Your task to perform on an android device: toggle javascript in the chrome app Image 0: 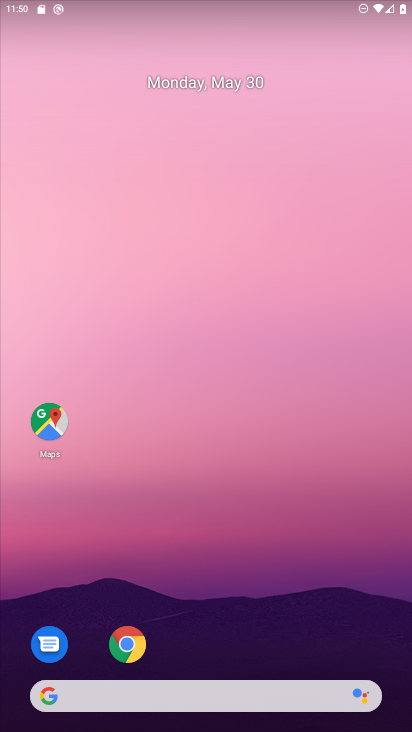
Step 0: click (207, 31)
Your task to perform on an android device: toggle javascript in the chrome app Image 1: 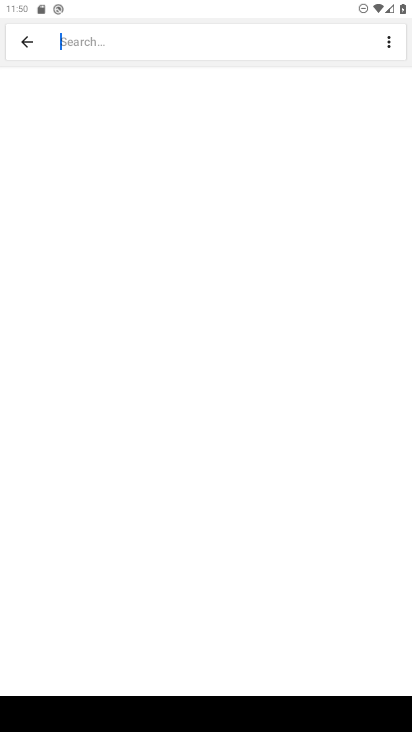
Step 1: press home button
Your task to perform on an android device: toggle javascript in the chrome app Image 2: 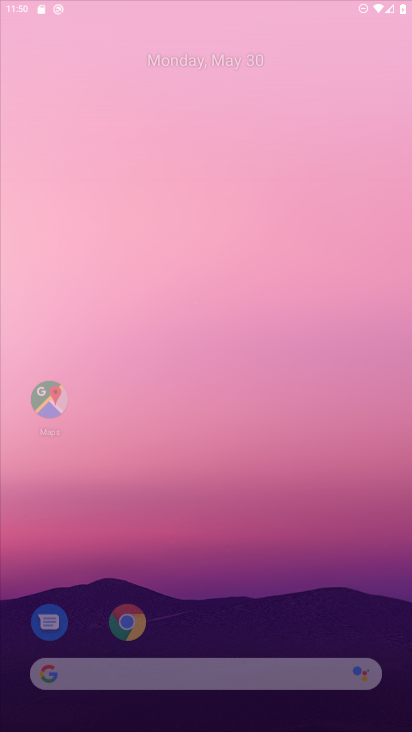
Step 2: drag from (269, 393) to (281, 7)
Your task to perform on an android device: toggle javascript in the chrome app Image 3: 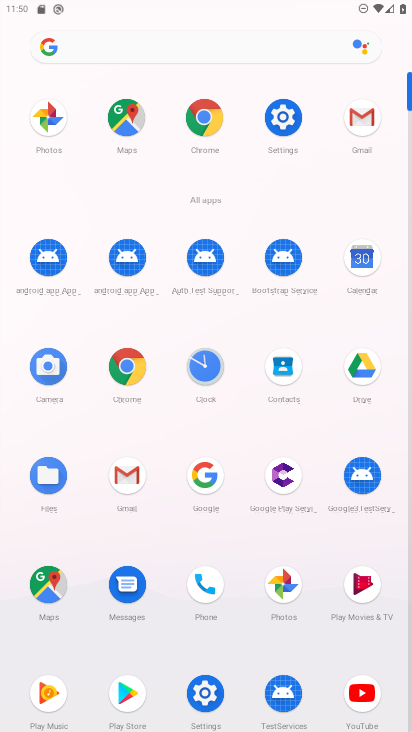
Step 3: click (117, 362)
Your task to perform on an android device: toggle javascript in the chrome app Image 4: 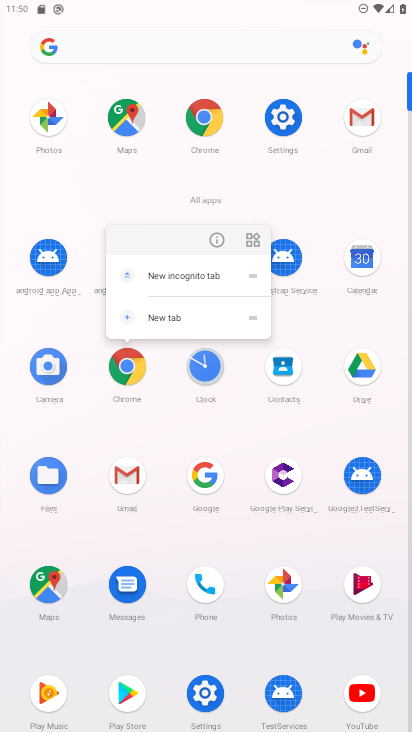
Step 4: click (214, 233)
Your task to perform on an android device: toggle javascript in the chrome app Image 5: 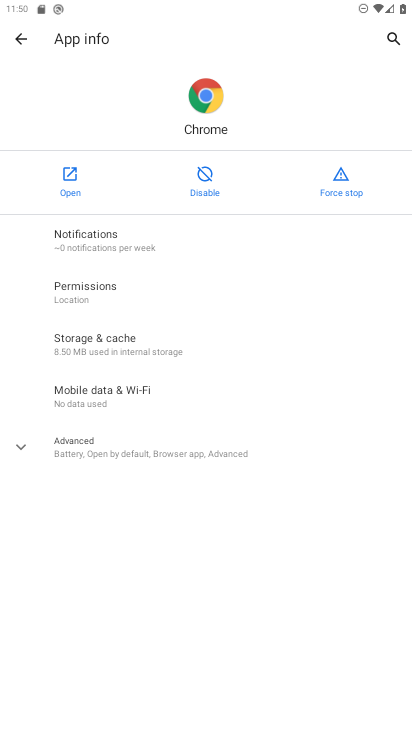
Step 5: click (76, 178)
Your task to perform on an android device: toggle javascript in the chrome app Image 6: 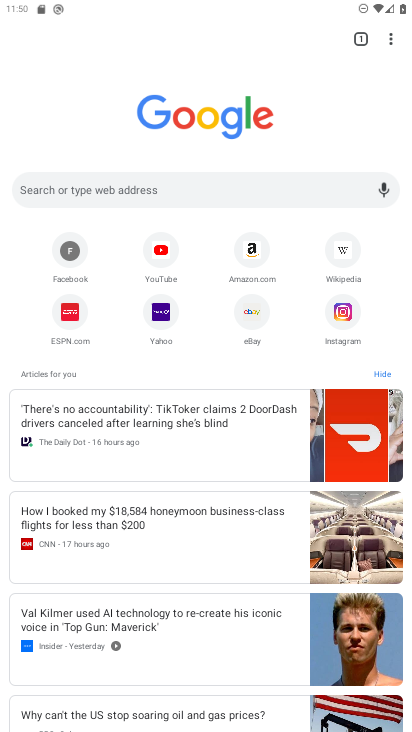
Step 6: drag from (388, 38) to (267, 359)
Your task to perform on an android device: toggle javascript in the chrome app Image 7: 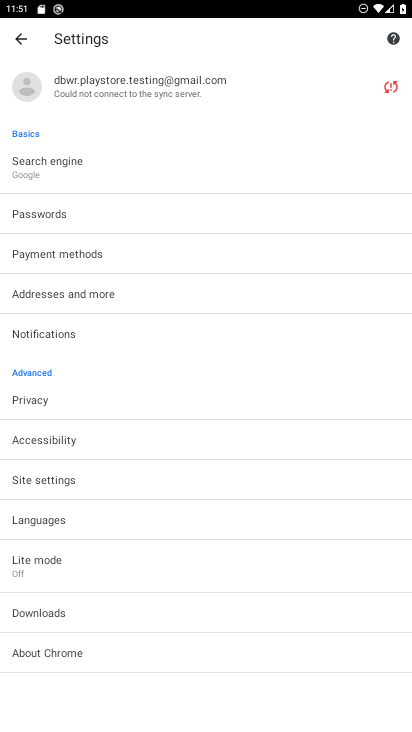
Step 7: click (85, 475)
Your task to perform on an android device: toggle javascript in the chrome app Image 8: 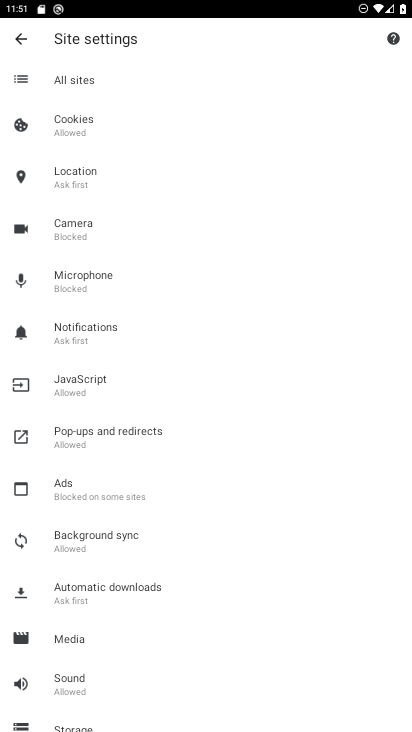
Step 8: click (88, 386)
Your task to perform on an android device: toggle javascript in the chrome app Image 9: 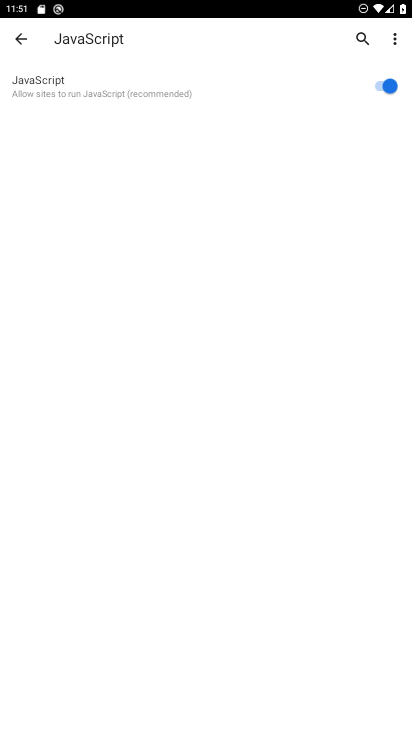
Step 9: task complete